Your task to perform on an android device: turn off sleep mode Image 0: 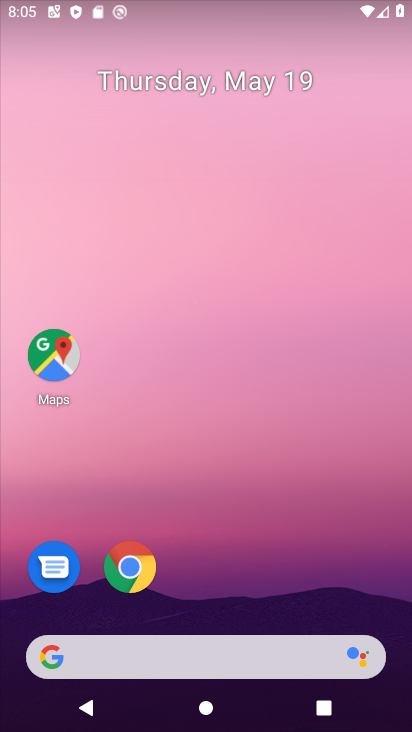
Step 0: drag from (218, 617) to (258, 137)
Your task to perform on an android device: turn off sleep mode Image 1: 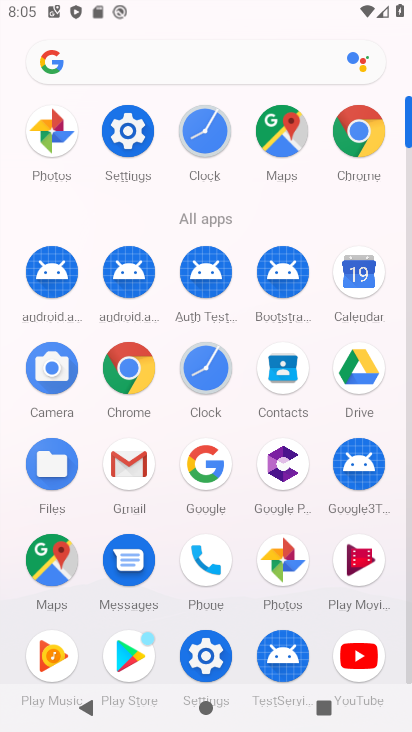
Step 1: click (127, 126)
Your task to perform on an android device: turn off sleep mode Image 2: 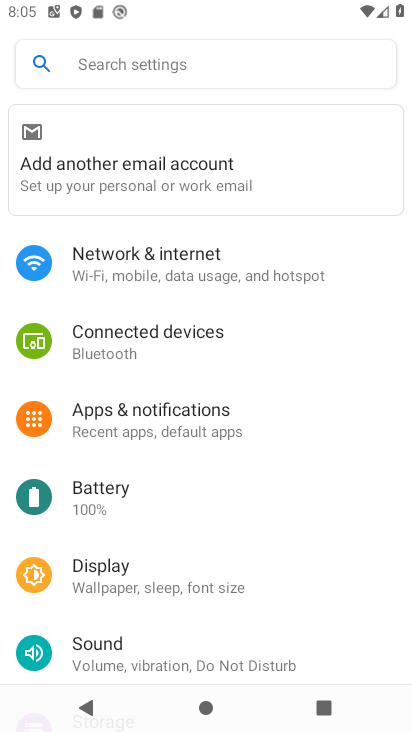
Step 2: task complete